Your task to perform on an android device: turn off smart reply in the gmail app Image 0: 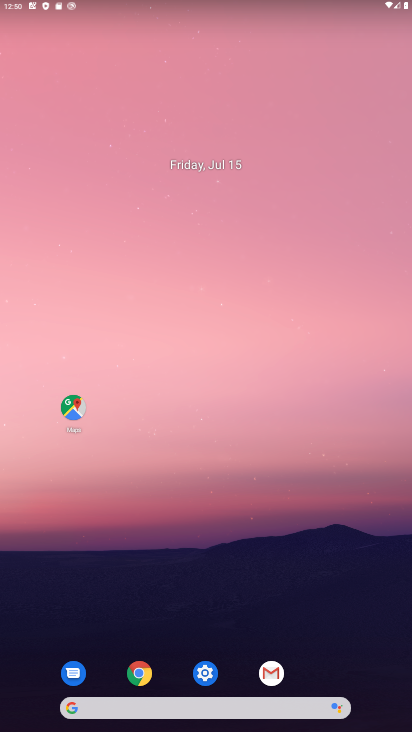
Step 0: press home button
Your task to perform on an android device: turn off smart reply in the gmail app Image 1: 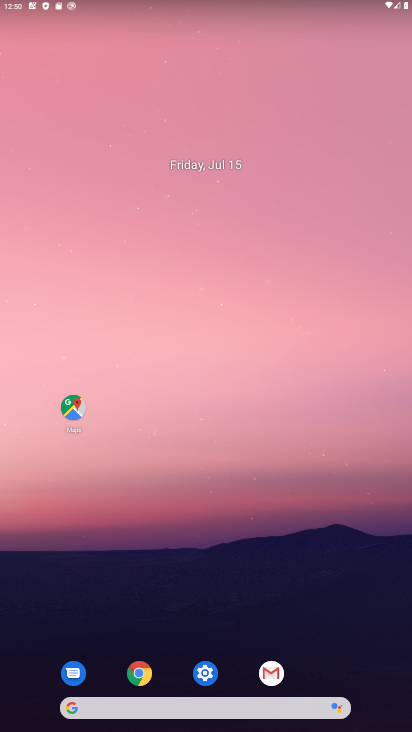
Step 1: click (271, 674)
Your task to perform on an android device: turn off smart reply in the gmail app Image 2: 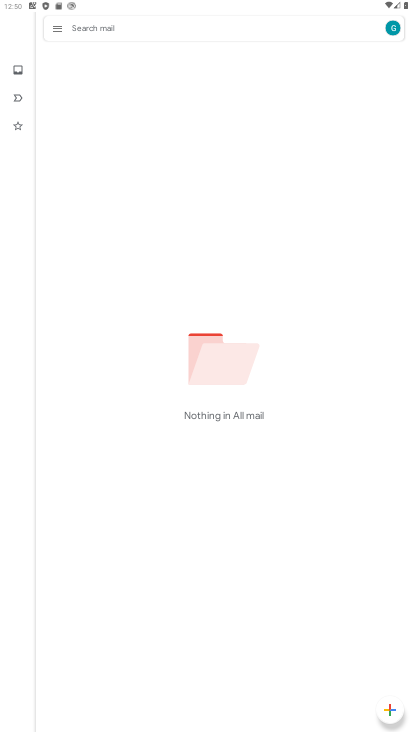
Step 2: click (56, 33)
Your task to perform on an android device: turn off smart reply in the gmail app Image 3: 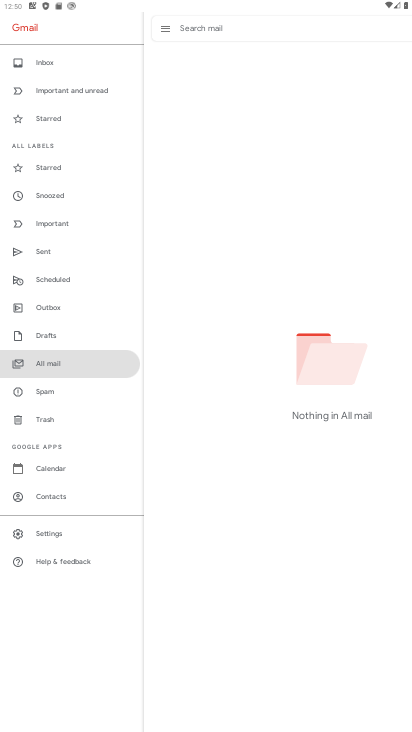
Step 3: click (50, 537)
Your task to perform on an android device: turn off smart reply in the gmail app Image 4: 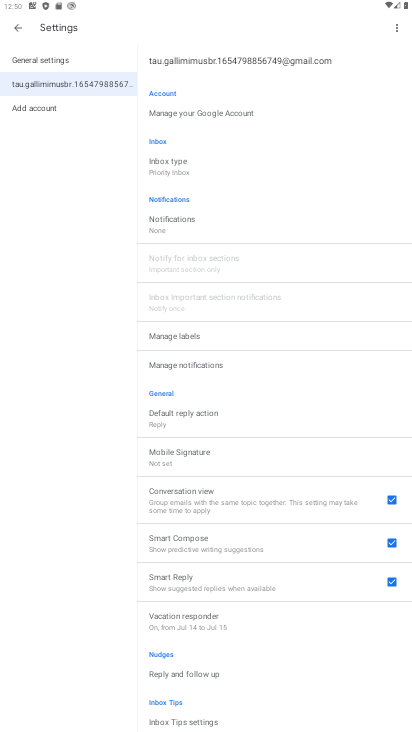
Step 4: drag from (301, 492) to (292, 383)
Your task to perform on an android device: turn off smart reply in the gmail app Image 5: 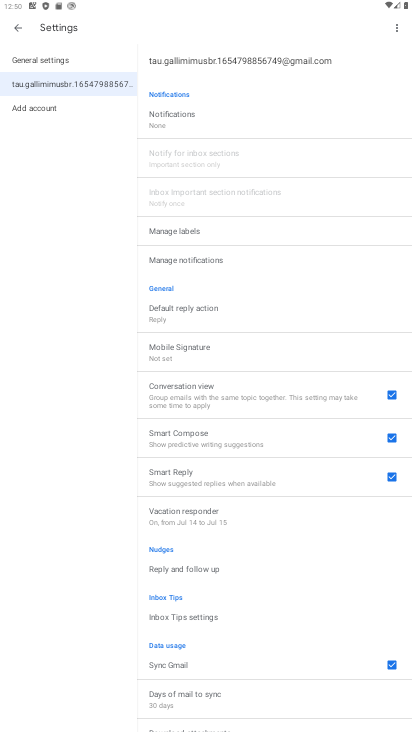
Step 5: click (271, 480)
Your task to perform on an android device: turn off smart reply in the gmail app Image 6: 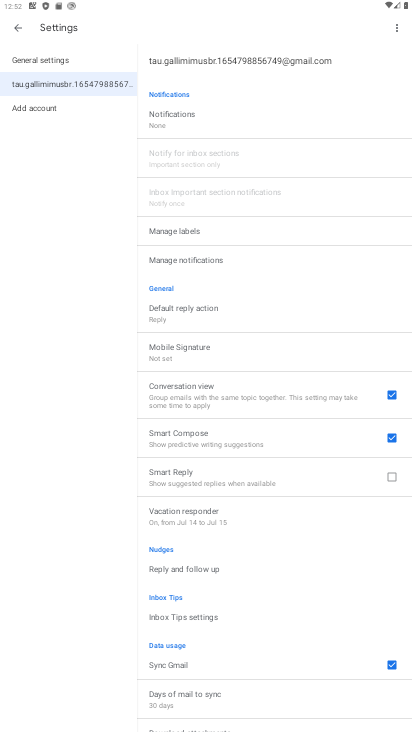
Step 6: task complete